Your task to perform on an android device: toggle translation in the chrome app Image 0: 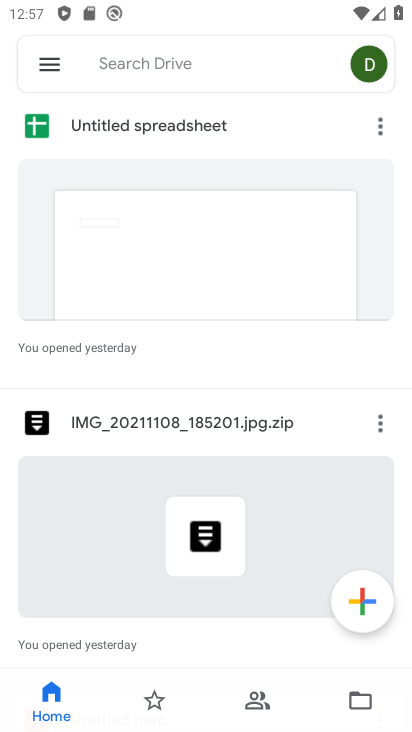
Step 0: press home button
Your task to perform on an android device: toggle translation in the chrome app Image 1: 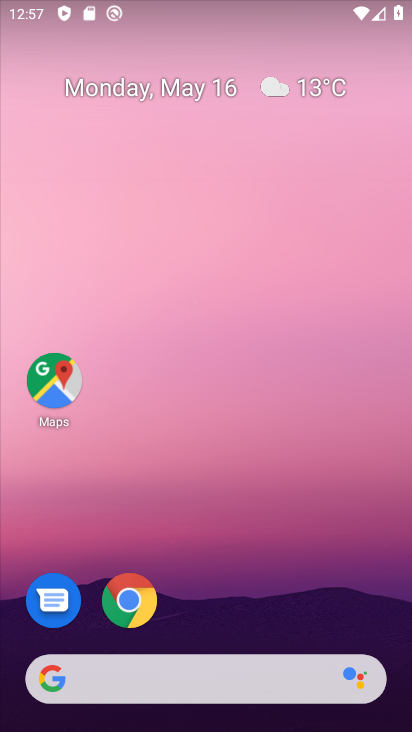
Step 1: click (135, 603)
Your task to perform on an android device: toggle translation in the chrome app Image 2: 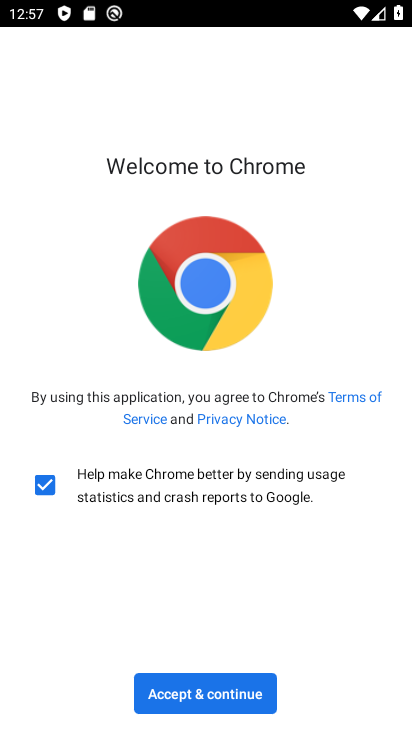
Step 2: click (235, 683)
Your task to perform on an android device: toggle translation in the chrome app Image 3: 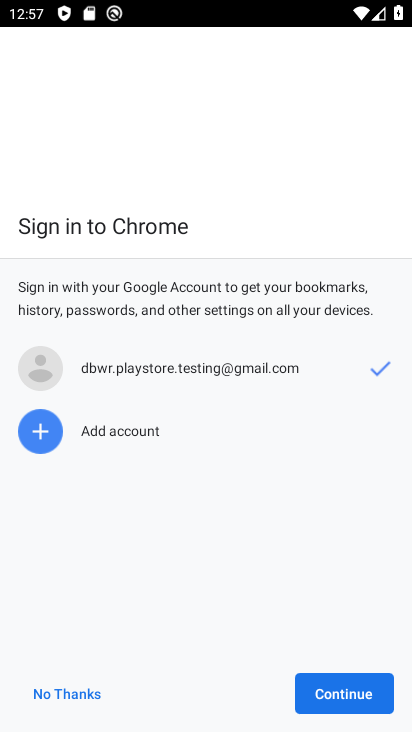
Step 3: click (341, 694)
Your task to perform on an android device: toggle translation in the chrome app Image 4: 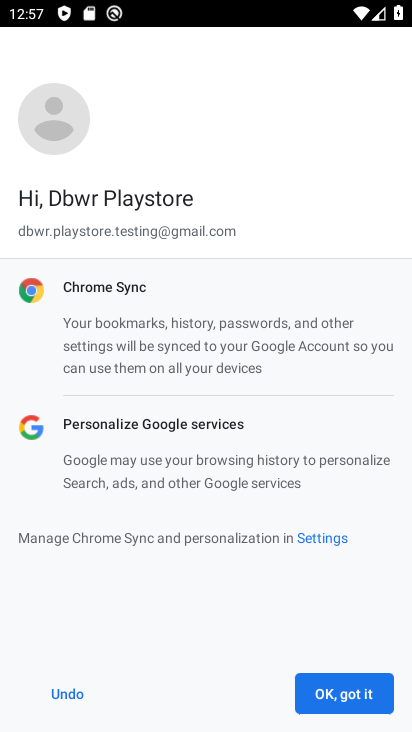
Step 4: click (341, 694)
Your task to perform on an android device: toggle translation in the chrome app Image 5: 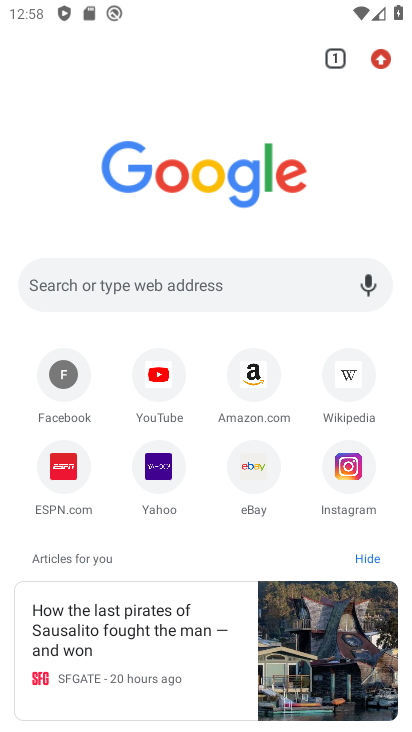
Step 5: click (380, 61)
Your task to perform on an android device: toggle translation in the chrome app Image 6: 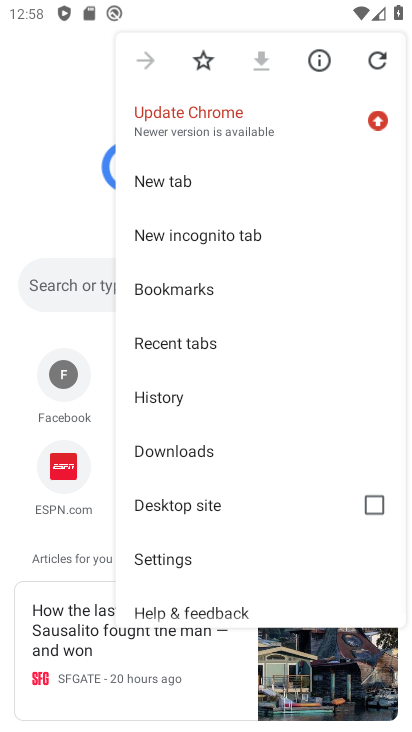
Step 6: click (166, 562)
Your task to perform on an android device: toggle translation in the chrome app Image 7: 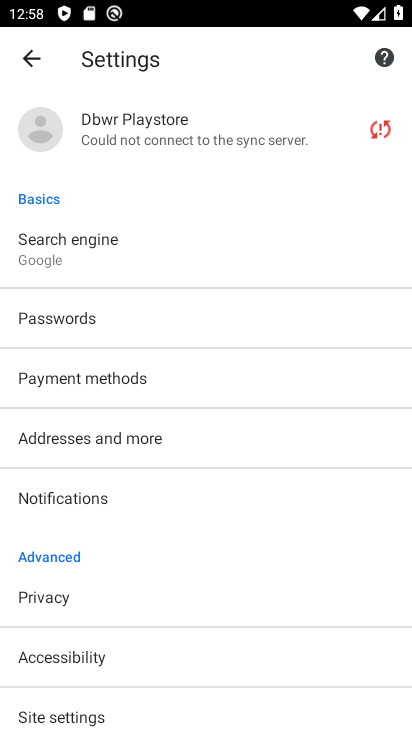
Step 7: drag from (135, 673) to (101, 329)
Your task to perform on an android device: toggle translation in the chrome app Image 8: 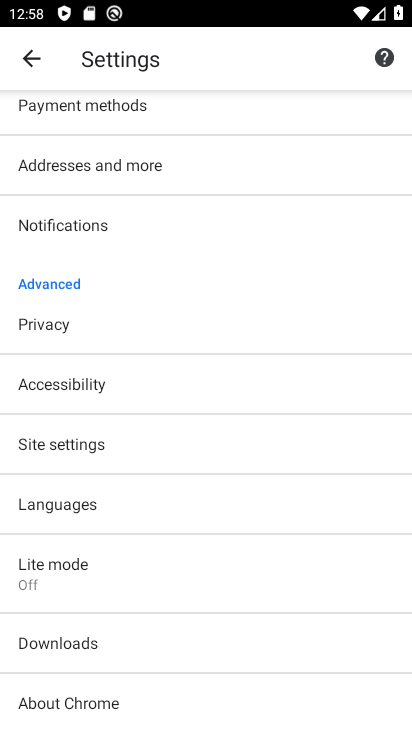
Step 8: click (57, 509)
Your task to perform on an android device: toggle translation in the chrome app Image 9: 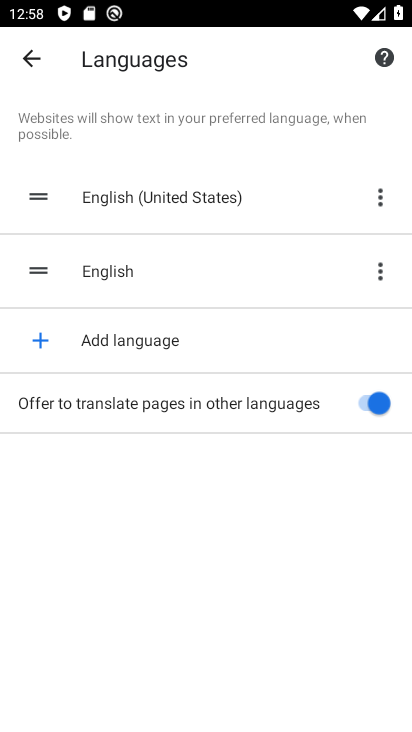
Step 9: click (377, 403)
Your task to perform on an android device: toggle translation in the chrome app Image 10: 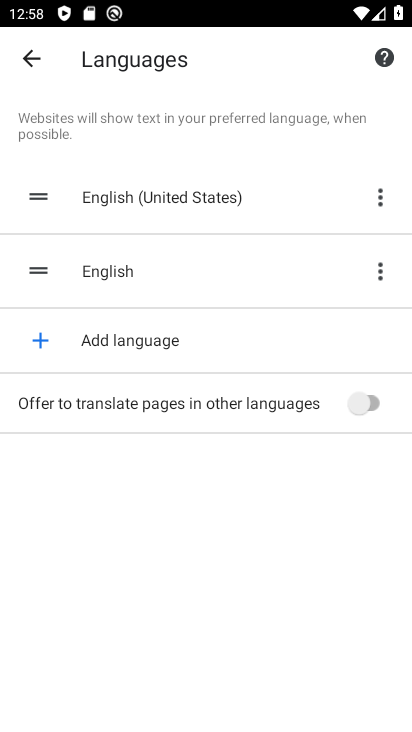
Step 10: task complete